Your task to perform on an android device: Open internet settings Image 0: 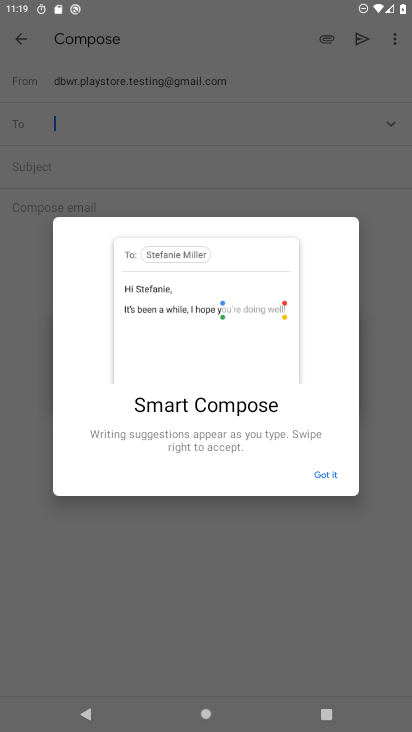
Step 0: press home button
Your task to perform on an android device: Open internet settings Image 1: 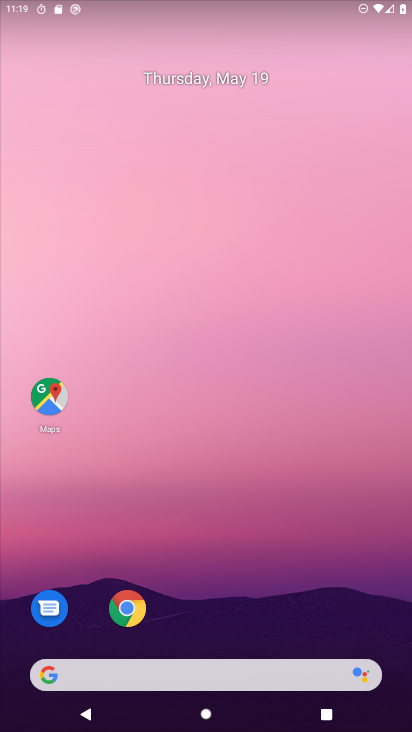
Step 1: drag from (400, 689) to (387, 348)
Your task to perform on an android device: Open internet settings Image 2: 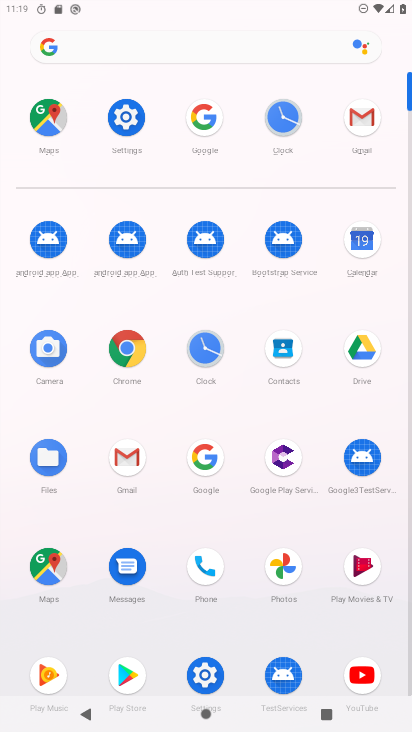
Step 2: click (123, 128)
Your task to perform on an android device: Open internet settings Image 3: 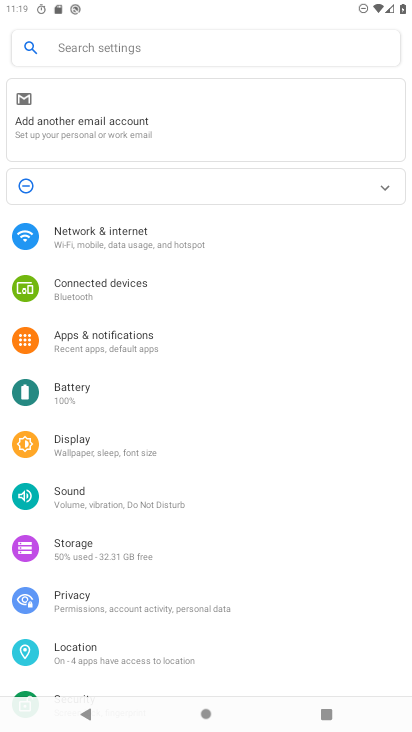
Step 3: click (99, 240)
Your task to perform on an android device: Open internet settings Image 4: 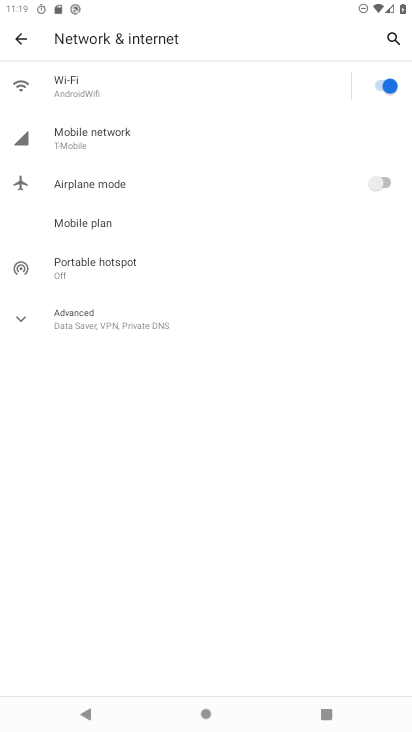
Step 4: click (93, 135)
Your task to perform on an android device: Open internet settings Image 5: 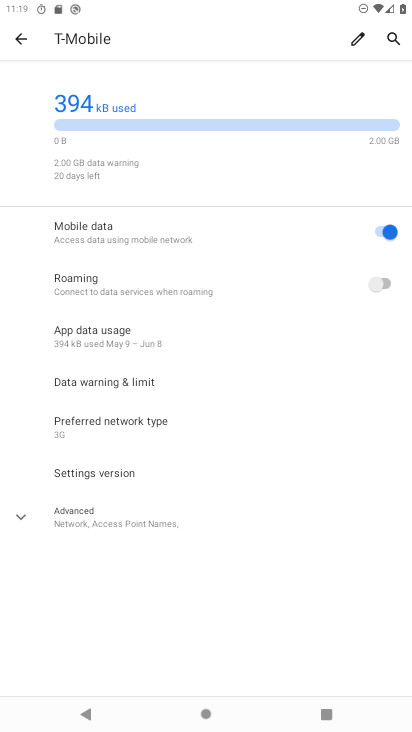
Step 5: task complete